Your task to perform on an android device: add a contact Image 0: 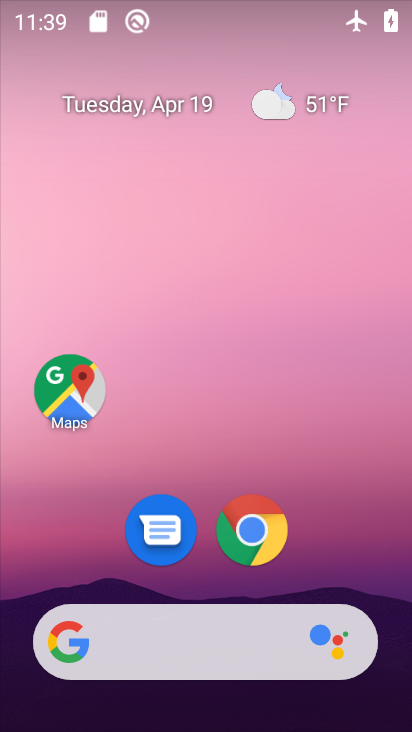
Step 0: drag from (199, 589) to (383, 38)
Your task to perform on an android device: add a contact Image 1: 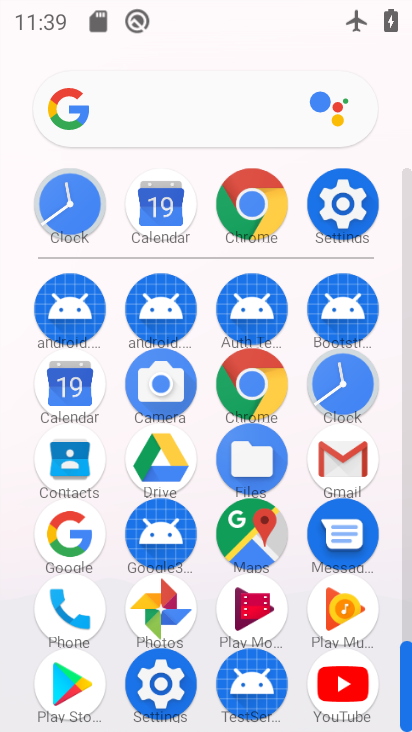
Step 1: click (65, 462)
Your task to perform on an android device: add a contact Image 2: 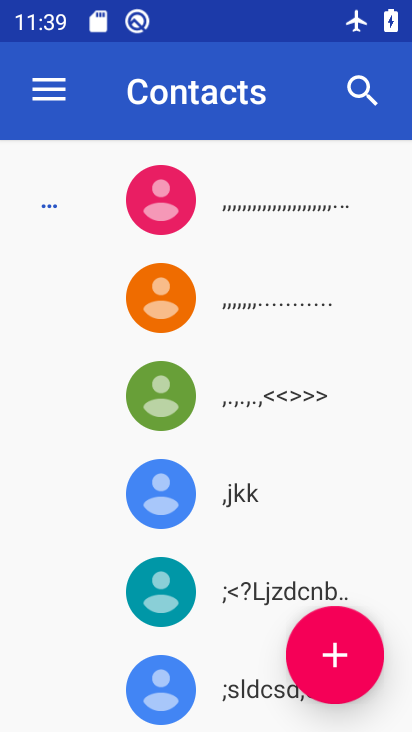
Step 2: click (339, 654)
Your task to perform on an android device: add a contact Image 3: 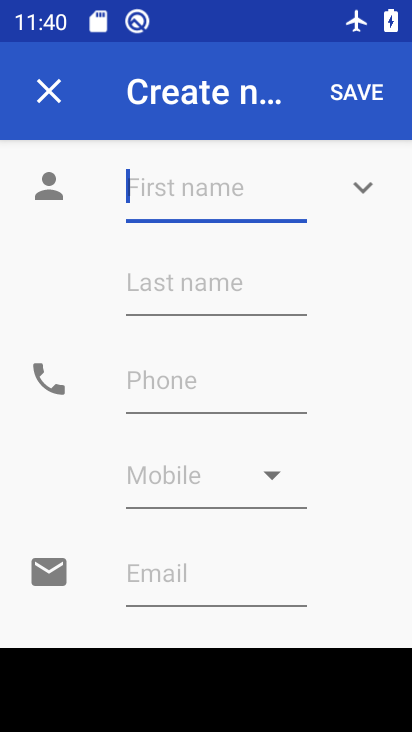
Step 3: type "bhytfghg"
Your task to perform on an android device: add a contact Image 4: 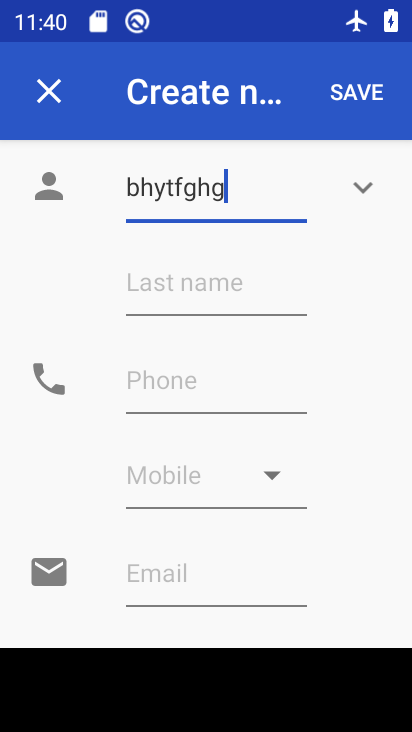
Step 4: click (158, 377)
Your task to perform on an android device: add a contact Image 5: 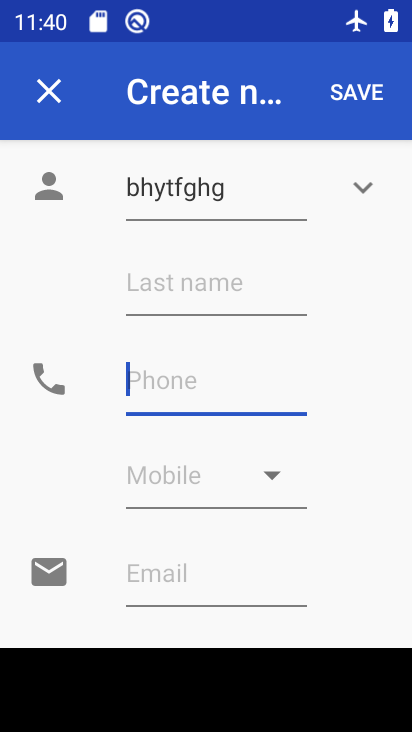
Step 5: type "73454655"
Your task to perform on an android device: add a contact Image 6: 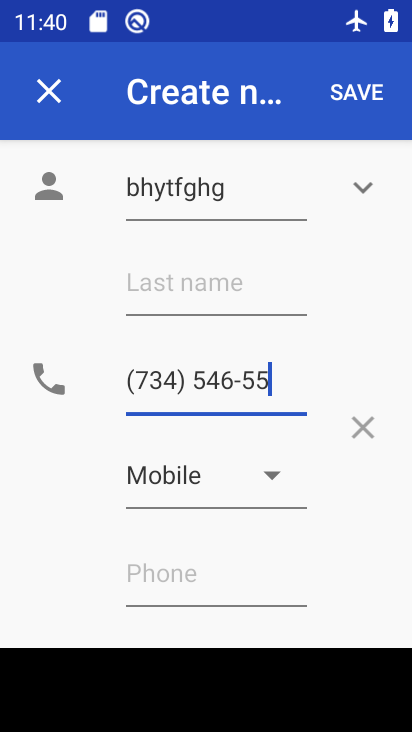
Step 6: click (359, 94)
Your task to perform on an android device: add a contact Image 7: 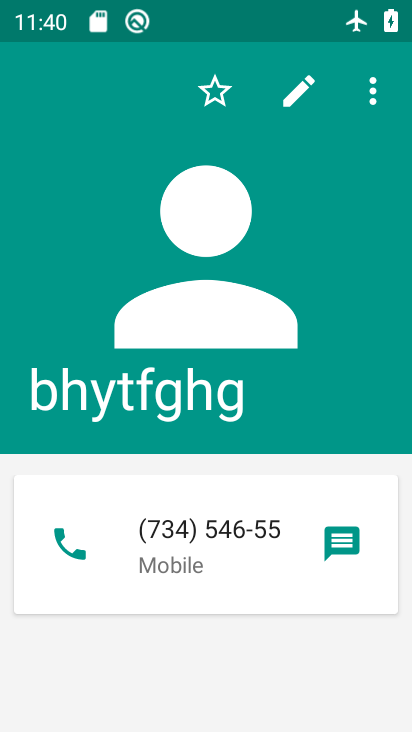
Step 7: task complete